Your task to perform on an android device: change the clock style Image 0: 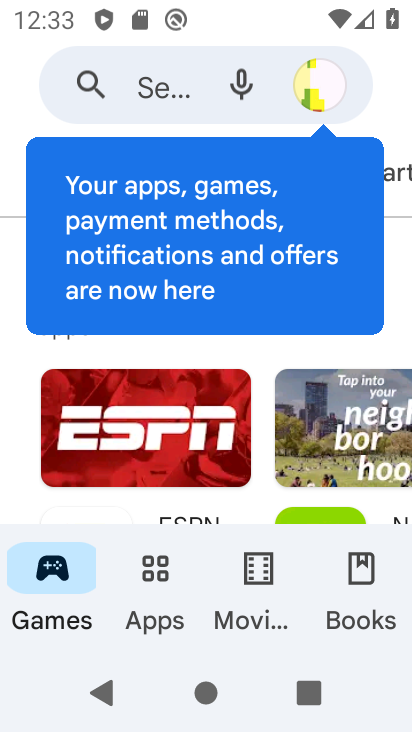
Step 0: press home button
Your task to perform on an android device: change the clock style Image 1: 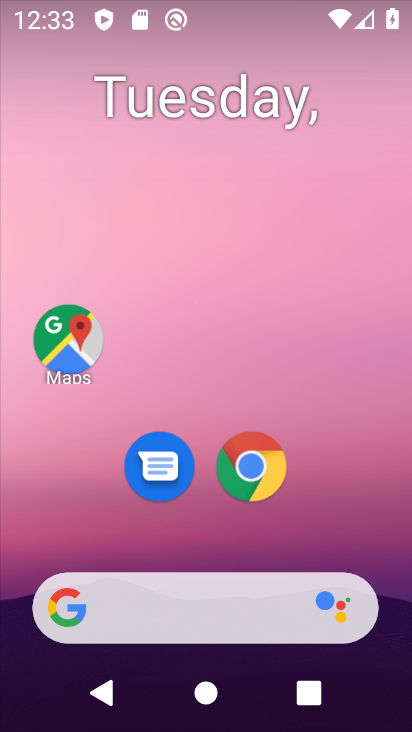
Step 1: drag from (359, 533) to (339, 216)
Your task to perform on an android device: change the clock style Image 2: 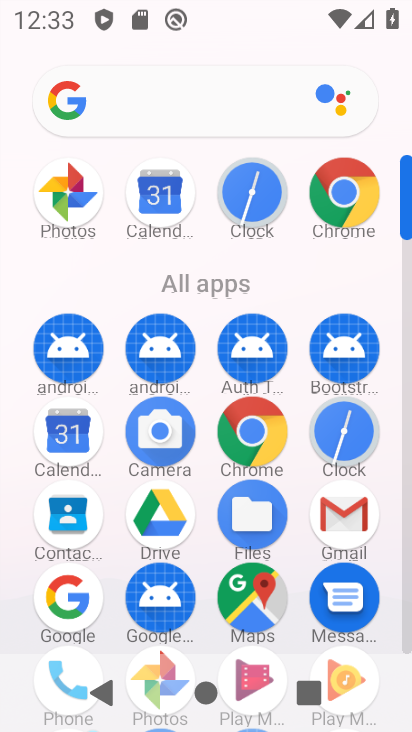
Step 2: click (362, 438)
Your task to perform on an android device: change the clock style Image 3: 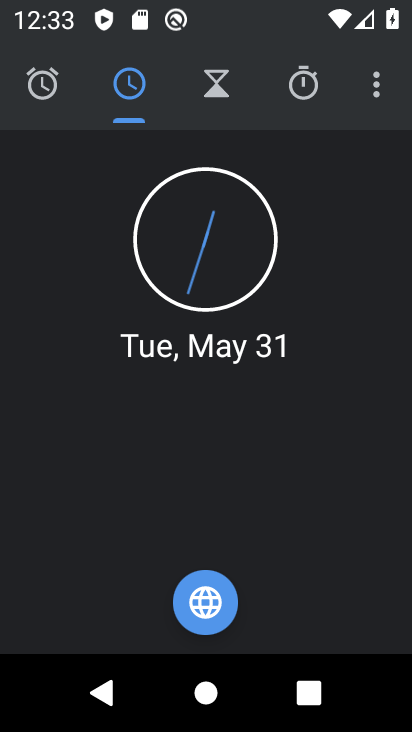
Step 3: click (380, 91)
Your task to perform on an android device: change the clock style Image 4: 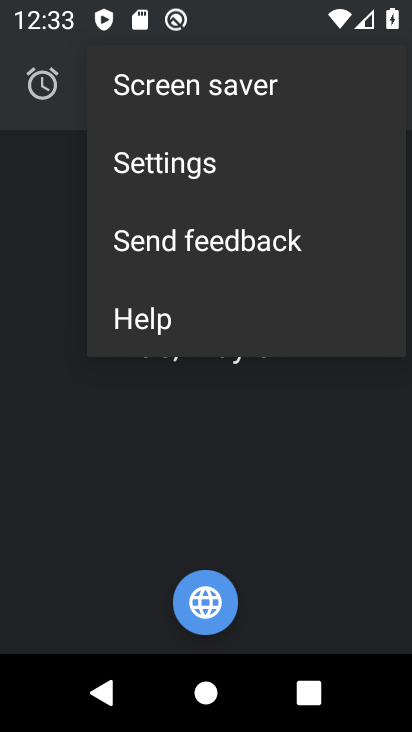
Step 4: click (190, 180)
Your task to perform on an android device: change the clock style Image 5: 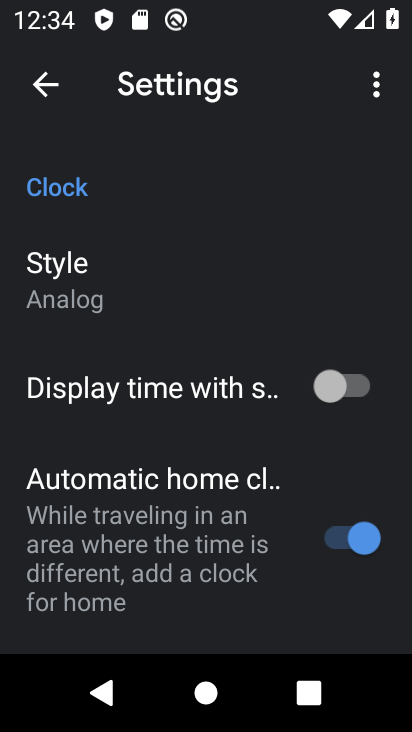
Step 5: drag from (275, 554) to (288, 461)
Your task to perform on an android device: change the clock style Image 6: 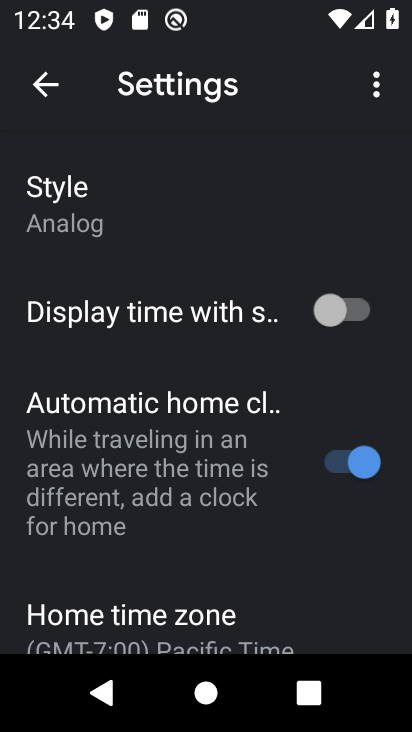
Step 6: drag from (300, 572) to (295, 467)
Your task to perform on an android device: change the clock style Image 7: 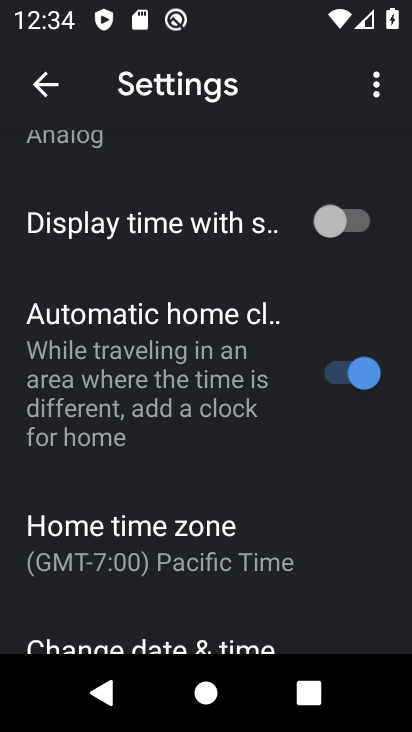
Step 7: drag from (321, 586) to (321, 478)
Your task to perform on an android device: change the clock style Image 8: 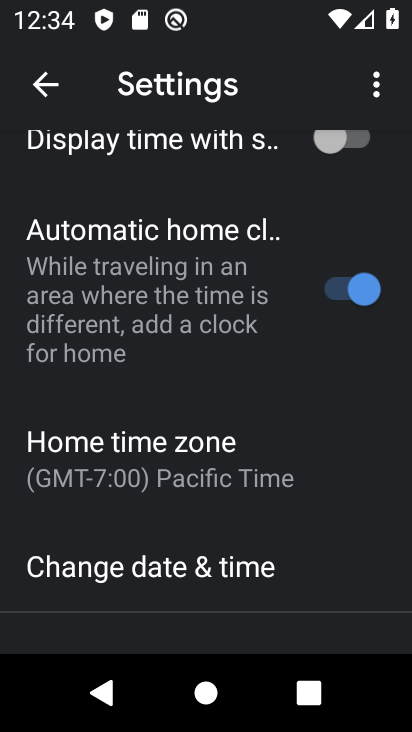
Step 8: drag from (322, 548) to (324, 470)
Your task to perform on an android device: change the clock style Image 9: 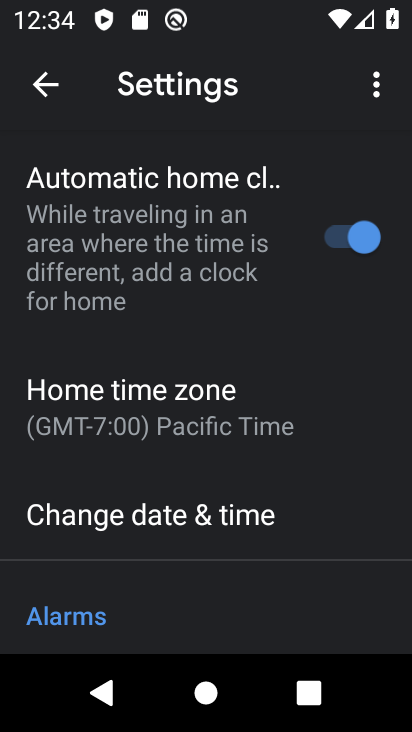
Step 9: drag from (328, 547) to (329, 469)
Your task to perform on an android device: change the clock style Image 10: 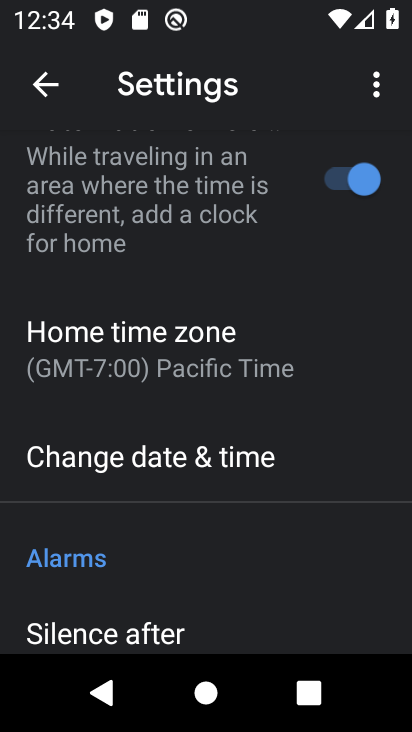
Step 10: drag from (347, 546) to (339, 426)
Your task to perform on an android device: change the clock style Image 11: 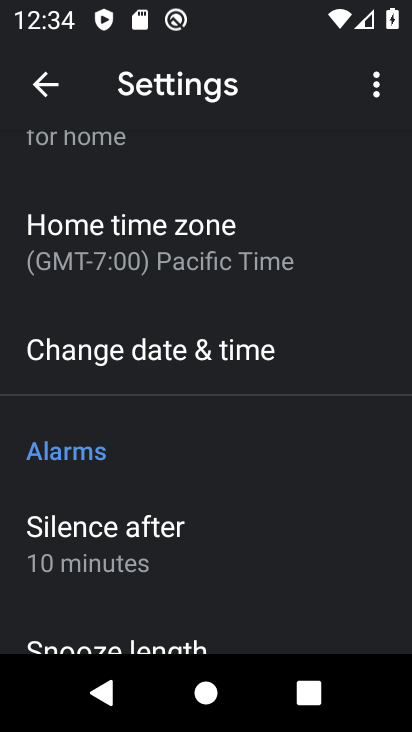
Step 11: drag from (334, 552) to (334, 462)
Your task to perform on an android device: change the clock style Image 12: 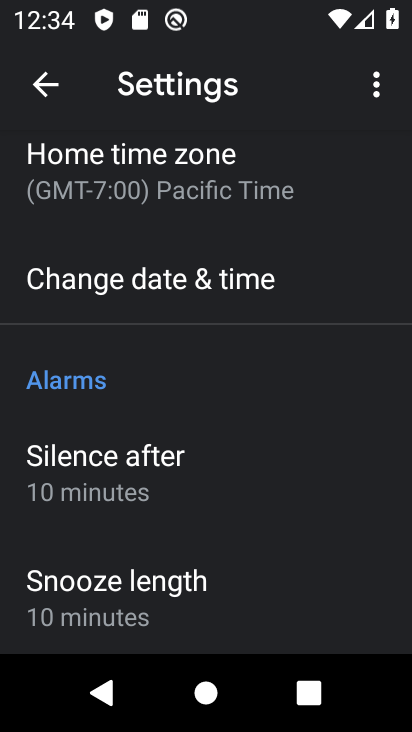
Step 12: drag from (333, 170) to (327, 246)
Your task to perform on an android device: change the clock style Image 13: 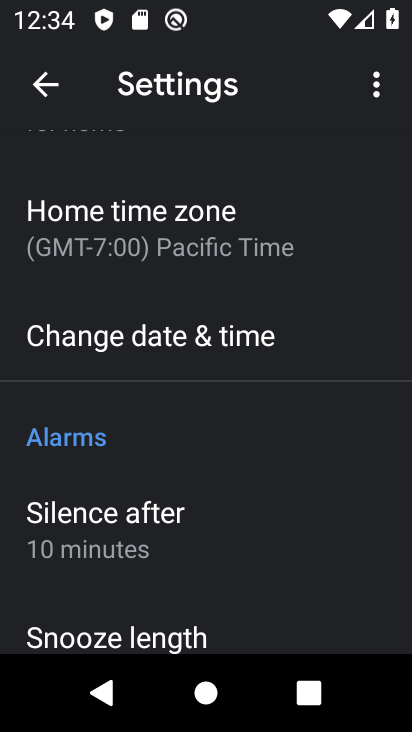
Step 13: drag from (319, 155) to (311, 264)
Your task to perform on an android device: change the clock style Image 14: 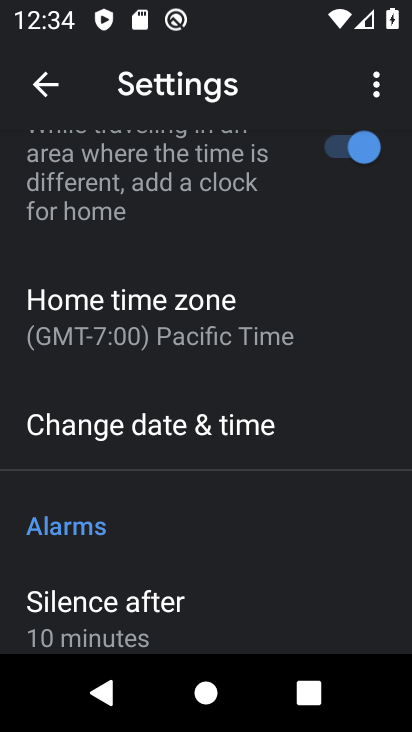
Step 14: drag from (303, 160) to (282, 265)
Your task to perform on an android device: change the clock style Image 15: 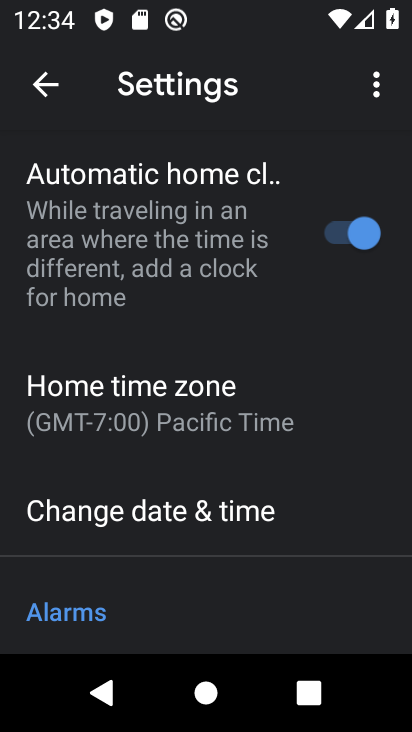
Step 15: drag from (277, 205) to (272, 276)
Your task to perform on an android device: change the clock style Image 16: 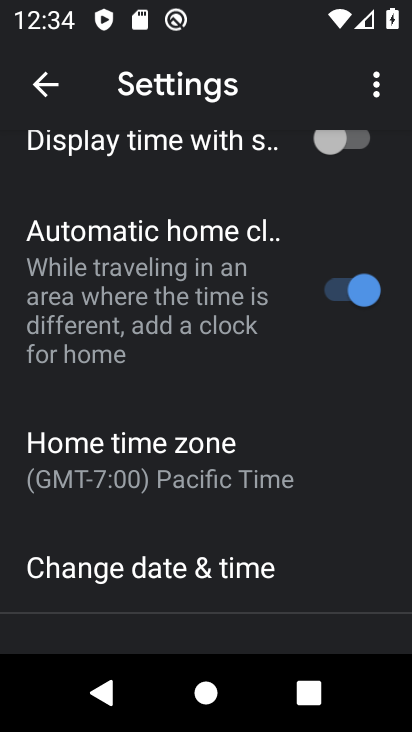
Step 16: drag from (269, 231) to (264, 320)
Your task to perform on an android device: change the clock style Image 17: 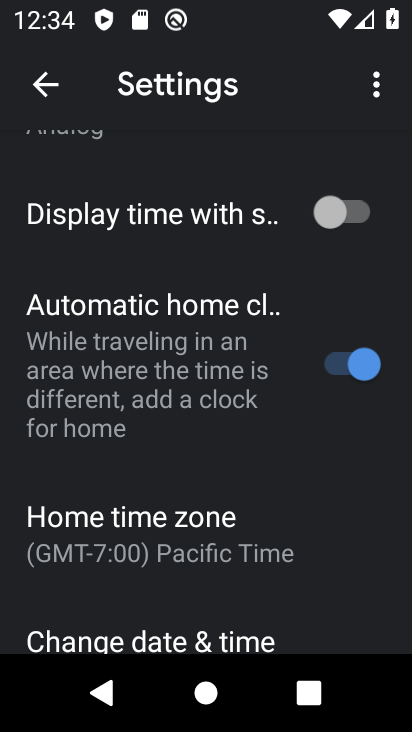
Step 17: drag from (292, 170) to (274, 294)
Your task to perform on an android device: change the clock style Image 18: 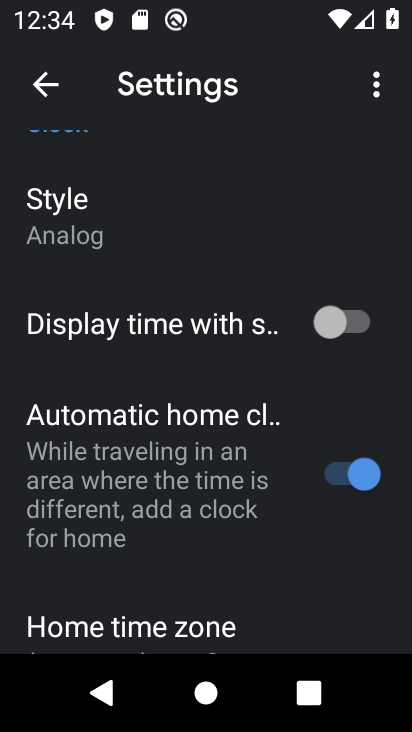
Step 18: click (79, 247)
Your task to perform on an android device: change the clock style Image 19: 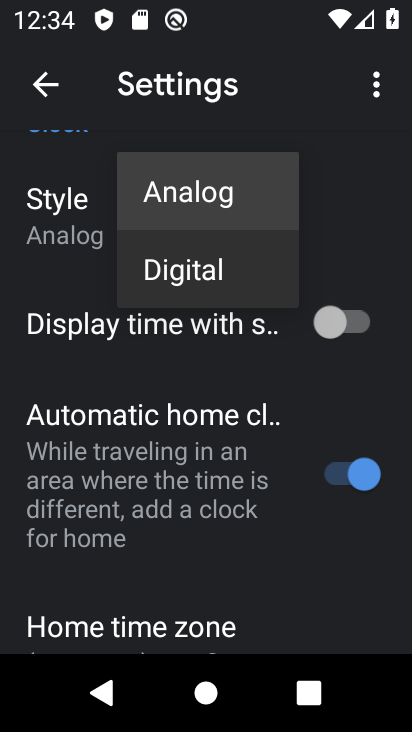
Step 19: click (190, 279)
Your task to perform on an android device: change the clock style Image 20: 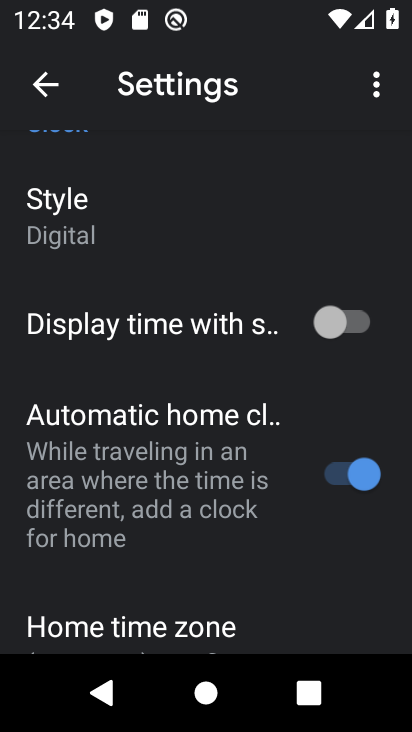
Step 20: task complete